Your task to perform on an android device: choose inbox layout in the gmail app Image 0: 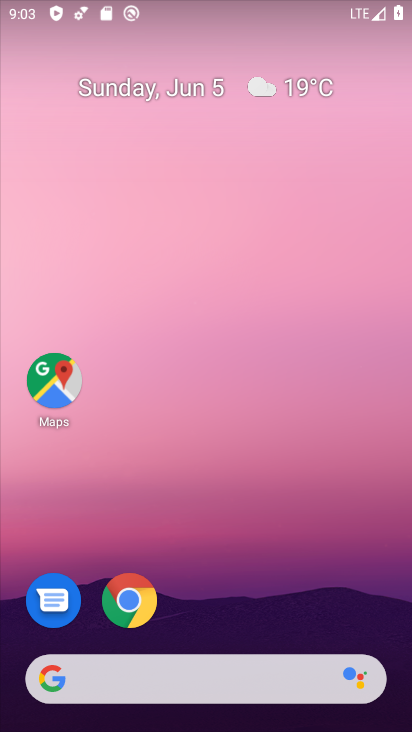
Step 0: drag from (300, 605) to (256, 248)
Your task to perform on an android device: choose inbox layout in the gmail app Image 1: 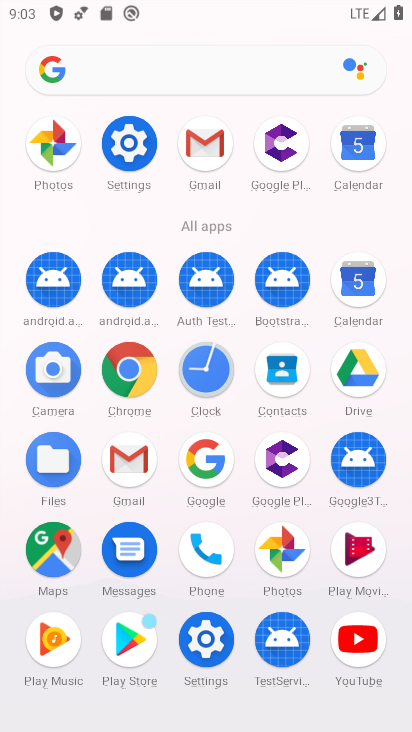
Step 1: click (219, 135)
Your task to perform on an android device: choose inbox layout in the gmail app Image 2: 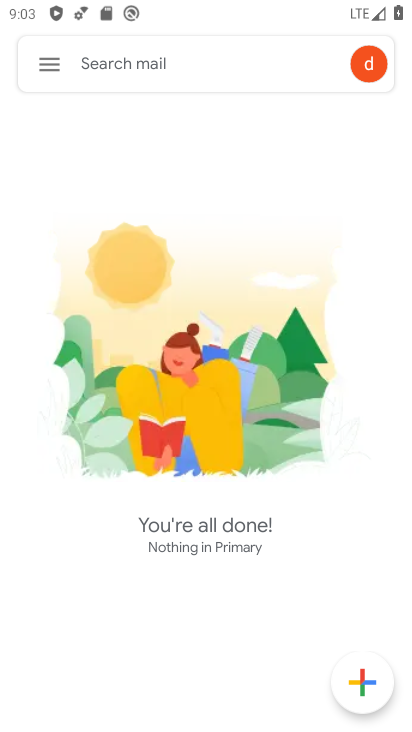
Step 2: click (51, 61)
Your task to perform on an android device: choose inbox layout in the gmail app Image 3: 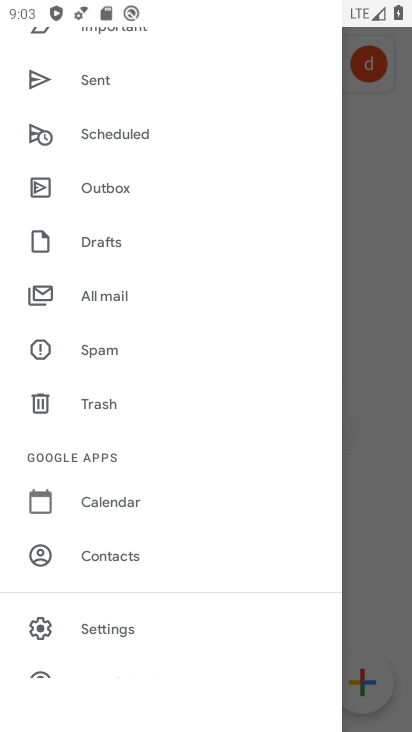
Step 3: click (116, 639)
Your task to perform on an android device: choose inbox layout in the gmail app Image 4: 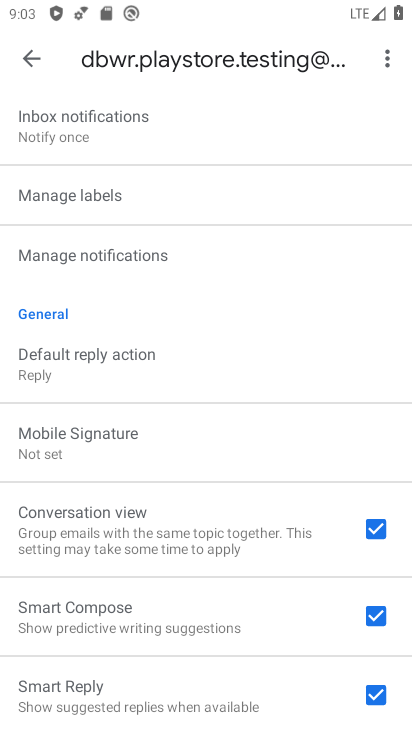
Step 4: drag from (90, 135) to (122, 549)
Your task to perform on an android device: choose inbox layout in the gmail app Image 5: 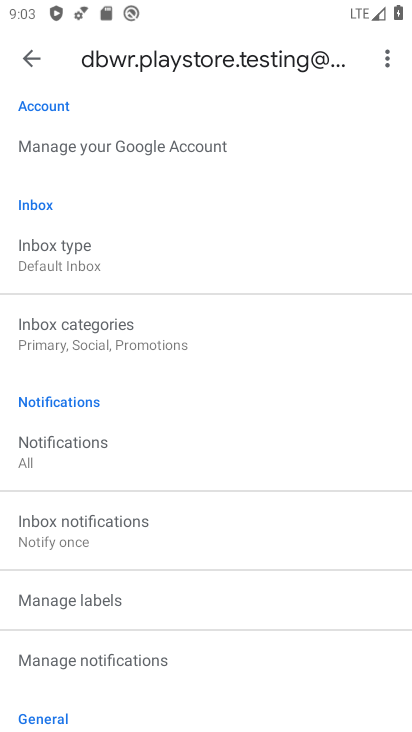
Step 5: drag from (89, 190) to (88, 343)
Your task to perform on an android device: choose inbox layout in the gmail app Image 6: 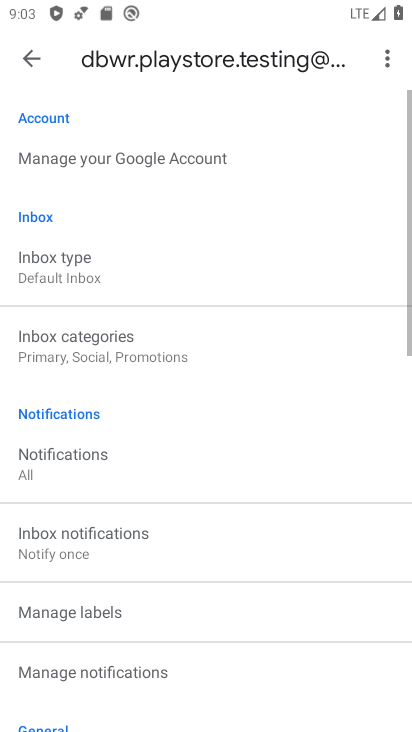
Step 6: click (73, 285)
Your task to perform on an android device: choose inbox layout in the gmail app Image 7: 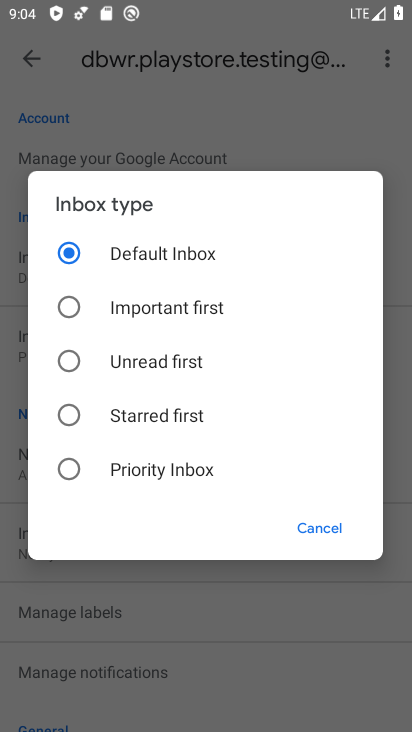
Step 7: click (110, 357)
Your task to perform on an android device: choose inbox layout in the gmail app Image 8: 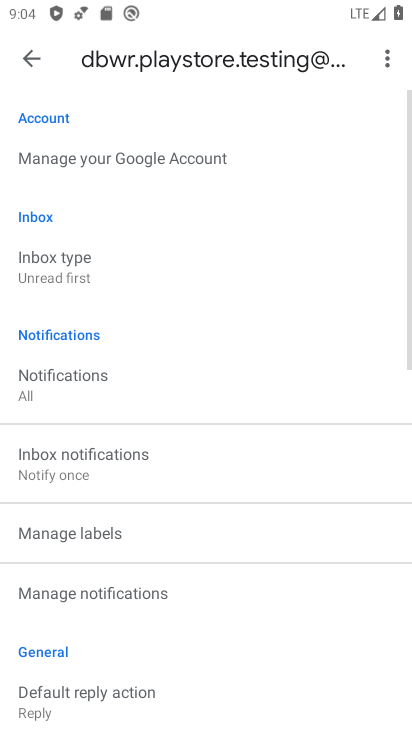
Step 8: task complete